Your task to perform on an android device: Open calendar and show me the fourth week of next month Image 0: 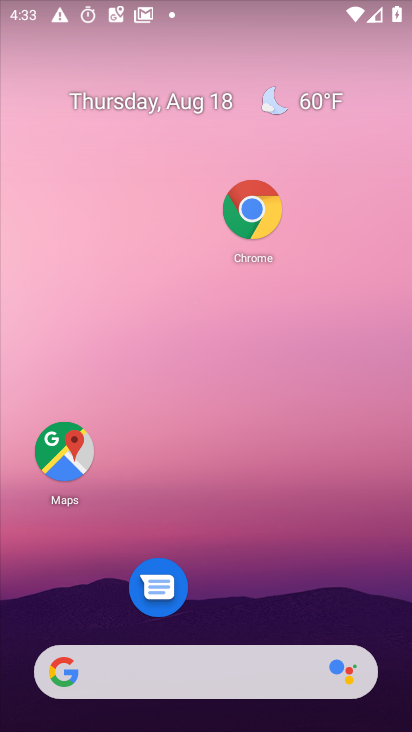
Step 0: drag from (275, 601) to (243, 11)
Your task to perform on an android device: Open calendar and show me the fourth week of next month Image 1: 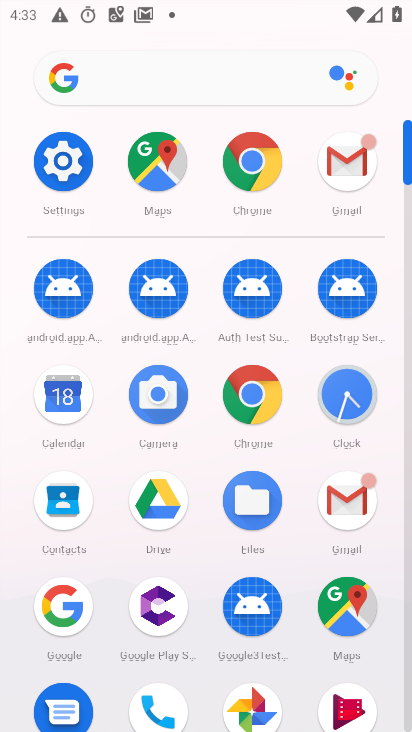
Step 1: click (63, 389)
Your task to perform on an android device: Open calendar and show me the fourth week of next month Image 2: 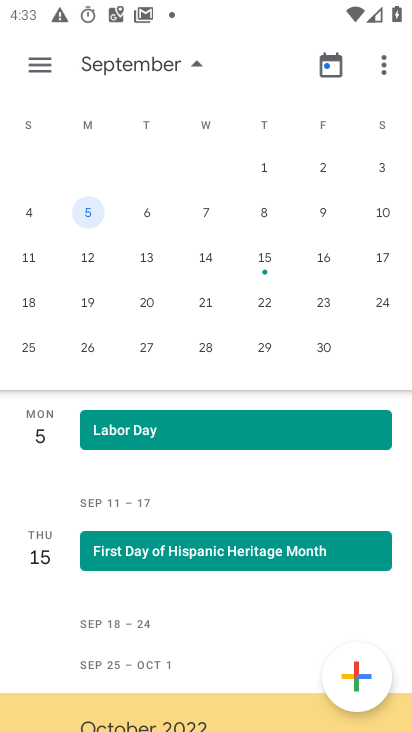
Step 2: click (208, 338)
Your task to perform on an android device: Open calendar and show me the fourth week of next month Image 3: 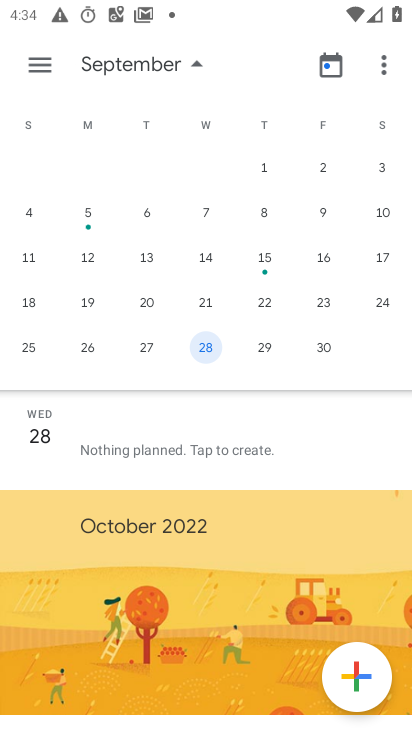
Step 3: task complete